Your task to perform on an android device: Go to Maps Image 0: 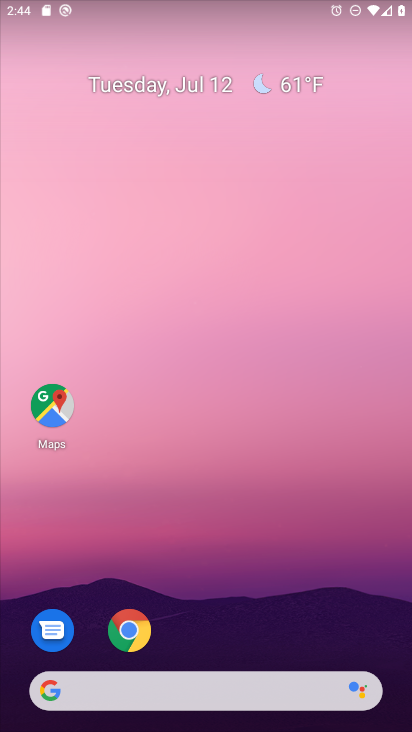
Step 0: click (54, 413)
Your task to perform on an android device: Go to Maps Image 1: 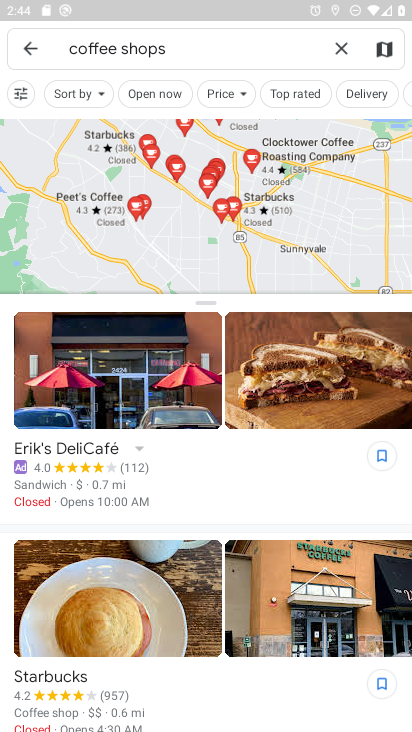
Step 1: task complete